Your task to perform on an android device: Go to wifi settings Image 0: 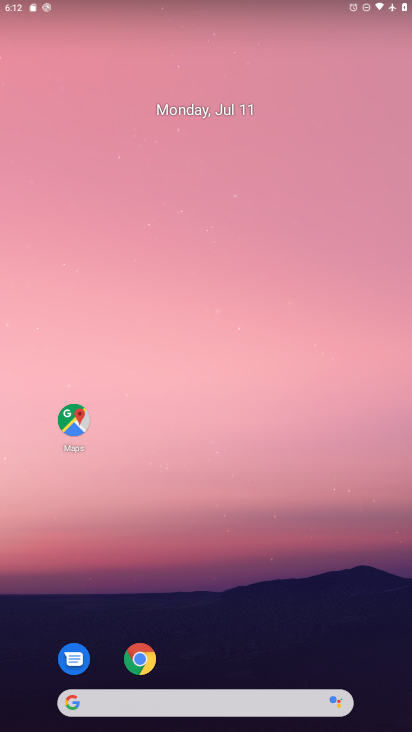
Step 0: drag from (390, 667) to (356, 133)
Your task to perform on an android device: Go to wifi settings Image 1: 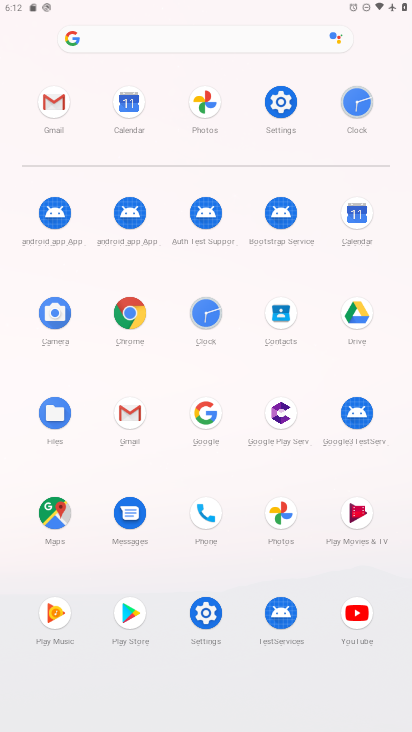
Step 1: click (207, 612)
Your task to perform on an android device: Go to wifi settings Image 2: 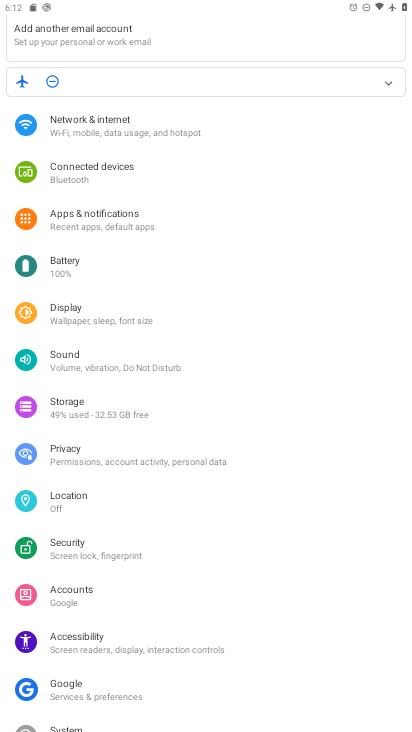
Step 2: click (85, 121)
Your task to perform on an android device: Go to wifi settings Image 3: 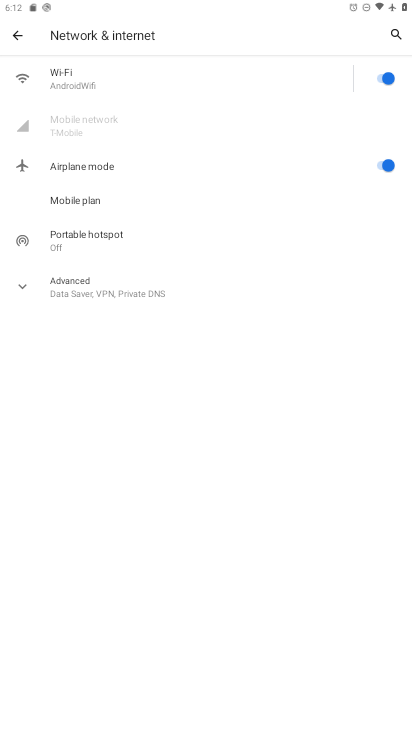
Step 3: click (69, 71)
Your task to perform on an android device: Go to wifi settings Image 4: 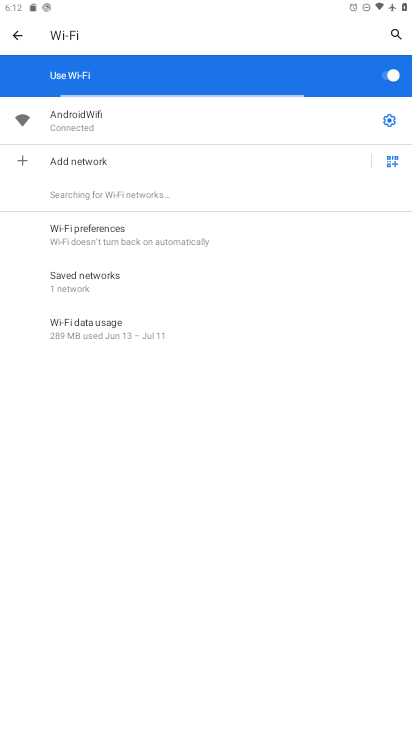
Step 4: task complete